Your task to perform on an android device: find which apps use the phone's location Image 0: 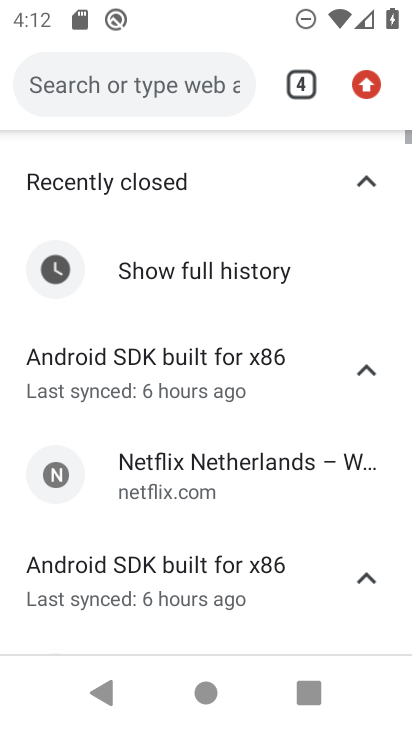
Step 0: press home button
Your task to perform on an android device: find which apps use the phone's location Image 1: 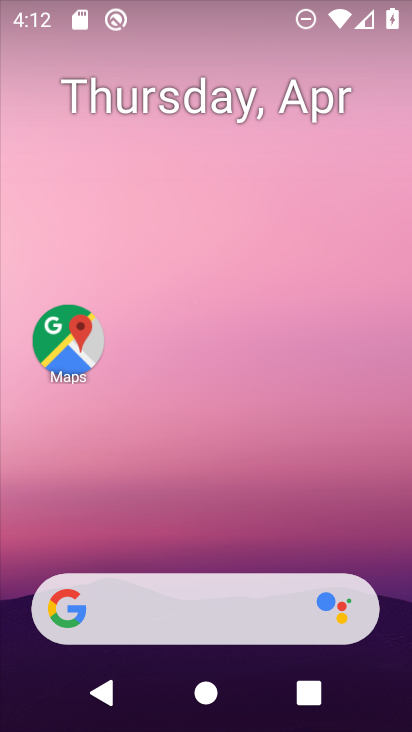
Step 1: drag from (219, 721) to (219, 145)
Your task to perform on an android device: find which apps use the phone's location Image 2: 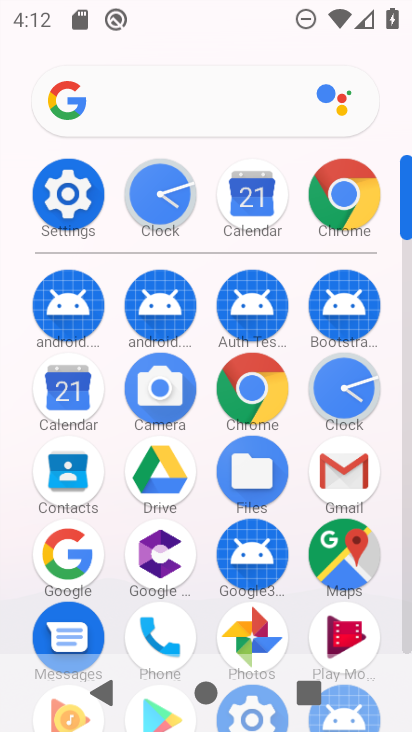
Step 2: click (64, 198)
Your task to perform on an android device: find which apps use the phone's location Image 3: 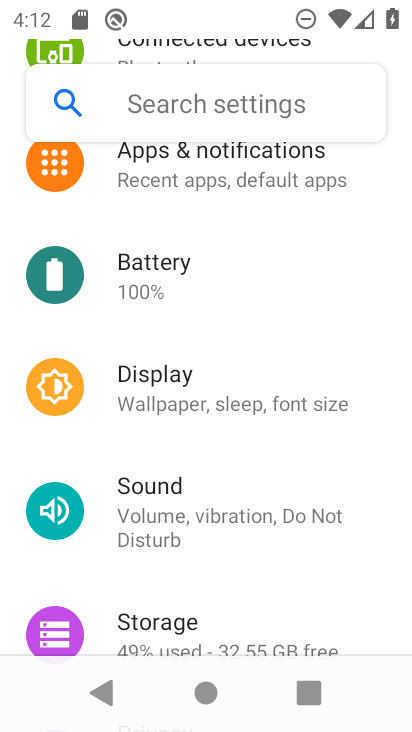
Step 3: drag from (211, 215) to (223, 581)
Your task to perform on an android device: find which apps use the phone's location Image 4: 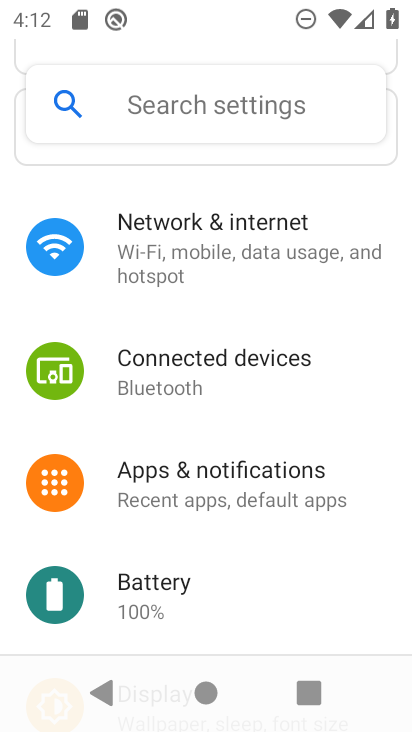
Step 4: drag from (233, 617) to (229, 258)
Your task to perform on an android device: find which apps use the phone's location Image 5: 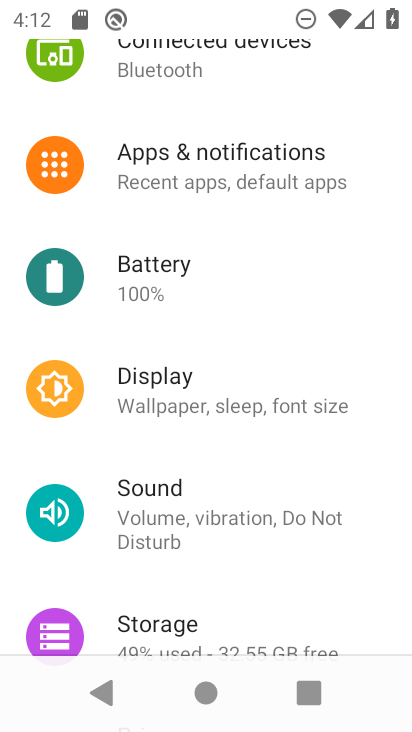
Step 5: drag from (226, 618) to (210, 269)
Your task to perform on an android device: find which apps use the phone's location Image 6: 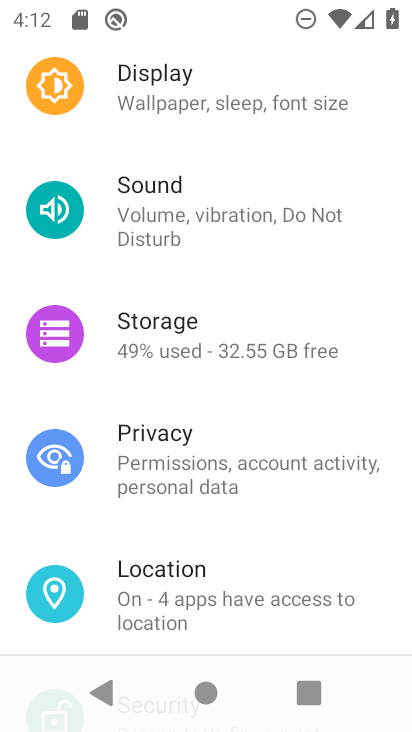
Step 6: click (170, 571)
Your task to perform on an android device: find which apps use the phone's location Image 7: 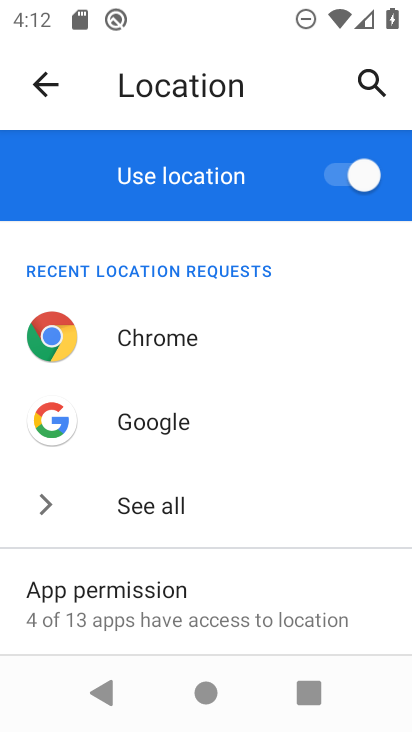
Step 7: click (154, 602)
Your task to perform on an android device: find which apps use the phone's location Image 8: 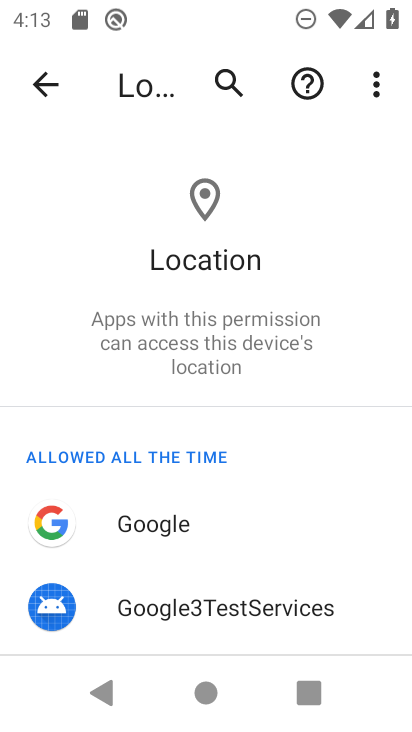
Step 8: task complete